Your task to perform on an android device: Open Google Chrome and open the bookmarks view Image 0: 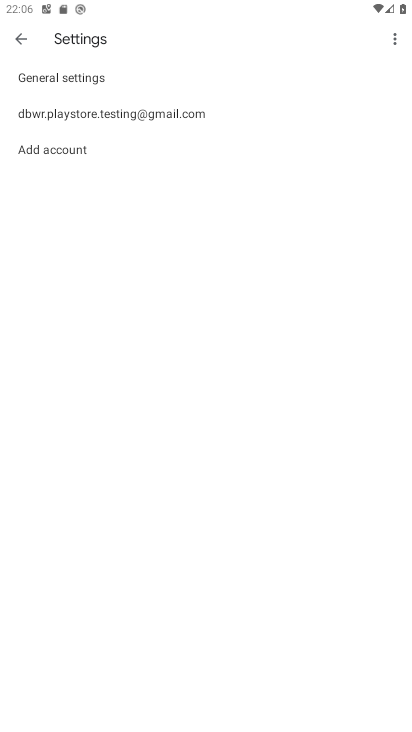
Step 0: press home button
Your task to perform on an android device: Open Google Chrome and open the bookmarks view Image 1: 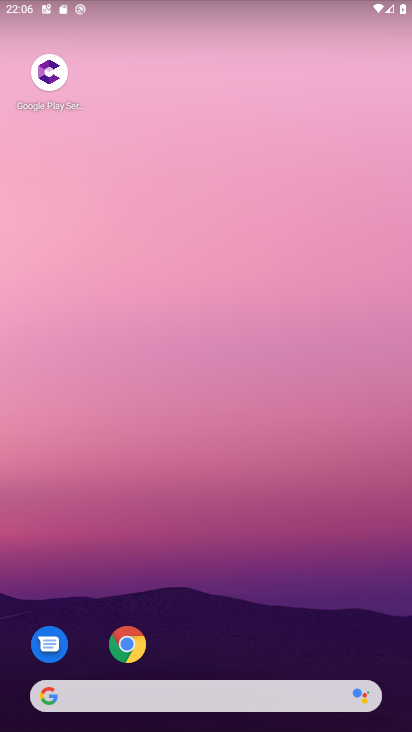
Step 1: click (122, 636)
Your task to perform on an android device: Open Google Chrome and open the bookmarks view Image 2: 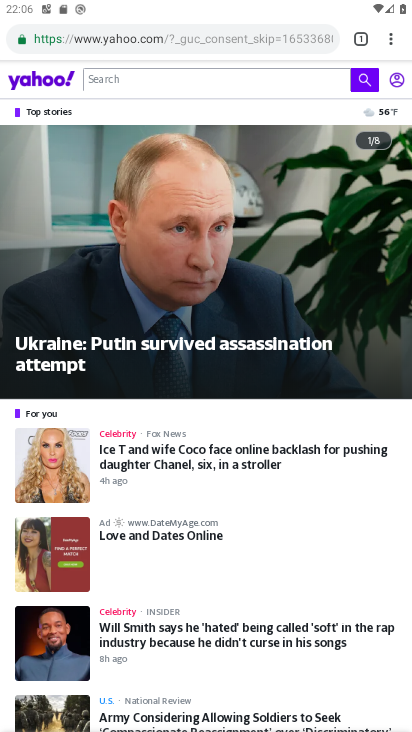
Step 2: click (390, 36)
Your task to perform on an android device: Open Google Chrome and open the bookmarks view Image 3: 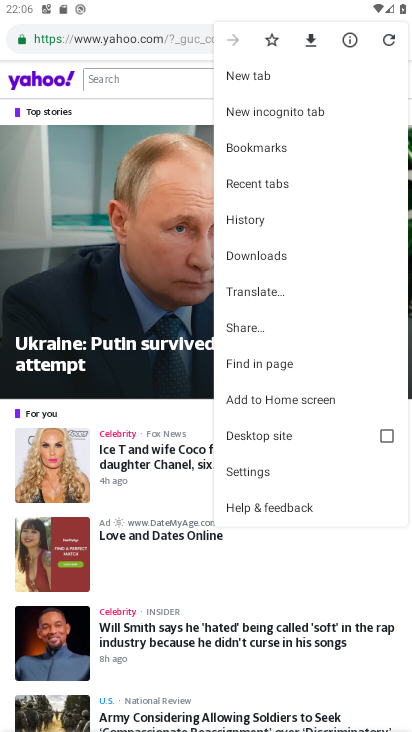
Step 3: click (289, 145)
Your task to perform on an android device: Open Google Chrome and open the bookmarks view Image 4: 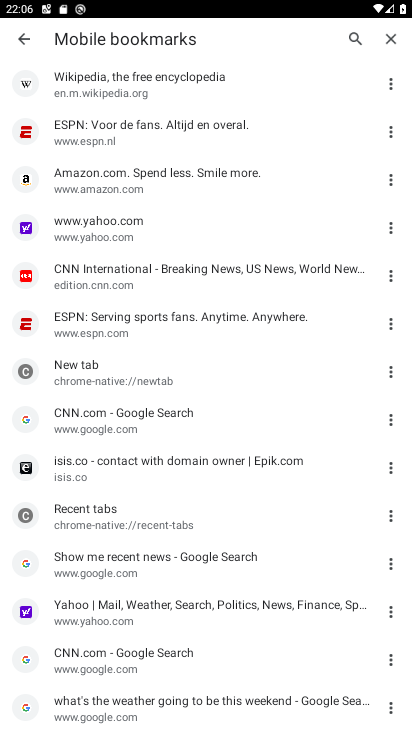
Step 4: click (106, 473)
Your task to perform on an android device: Open Google Chrome and open the bookmarks view Image 5: 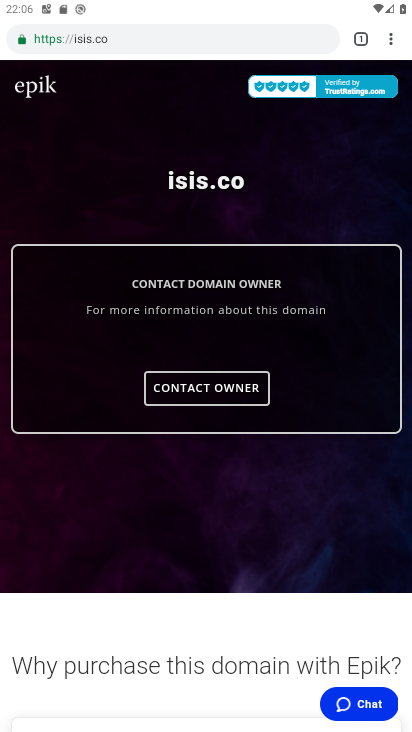
Step 5: task complete